Your task to perform on an android device: Go to settings Image 0: 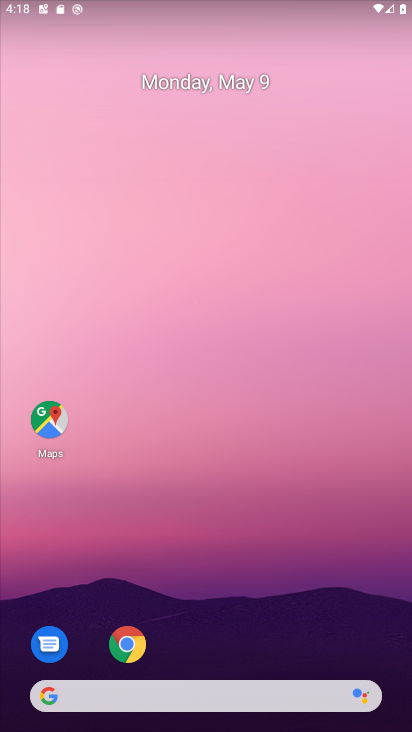
Step 0: drag from (270, 608) to (229, 22)
Your task to perform on an android device: Go to settings Image 1: 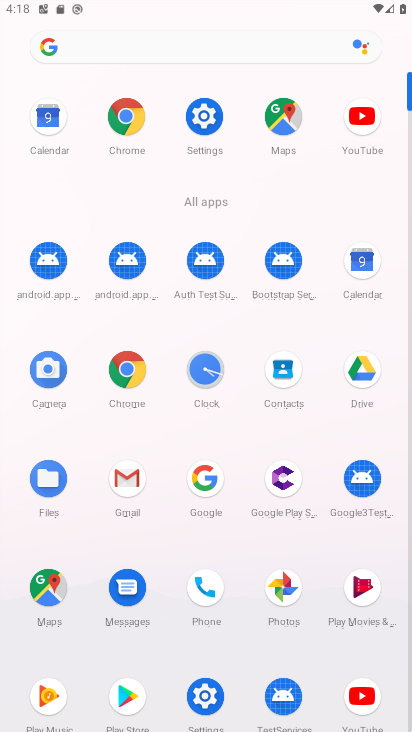
Step 1: click (203, 116)
Your task to perform on an android device: Go to settings Image 2: 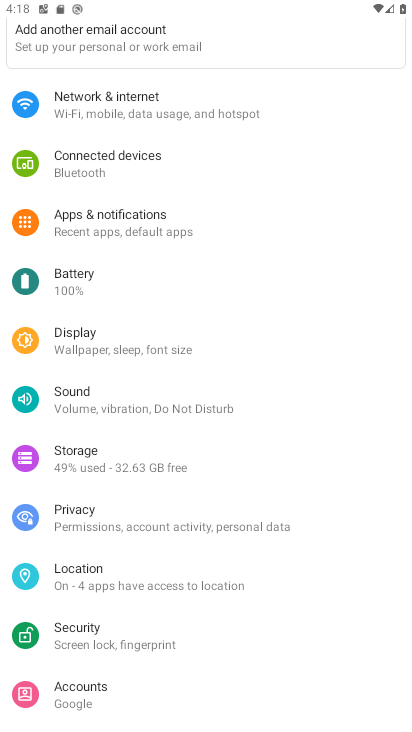
Step 2: task complete